Your task to perform on an android device: toggle javascript in the chrome app Image 0: 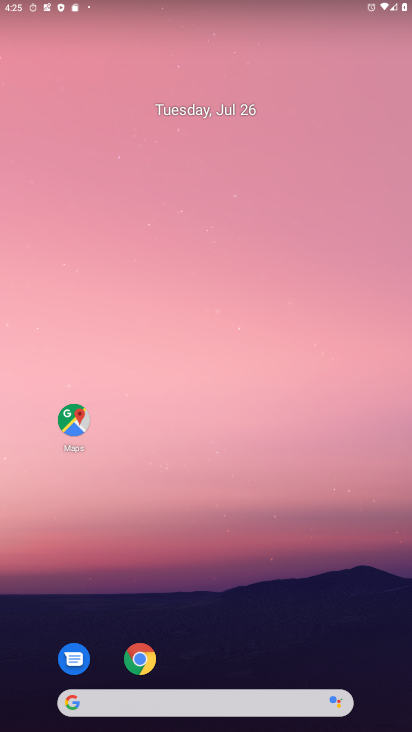
Step 0: drag from (237, 669) to (317, 77)
Your task to perform on an android device: toggle javascript in the chrome app Image 1: 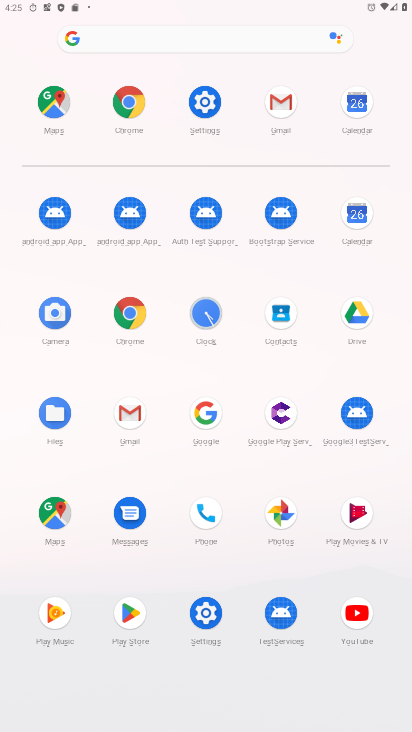
Step 1: click (130, 103)
Your task to perform on an android device: toggle javascript in the chrome app Image 2: 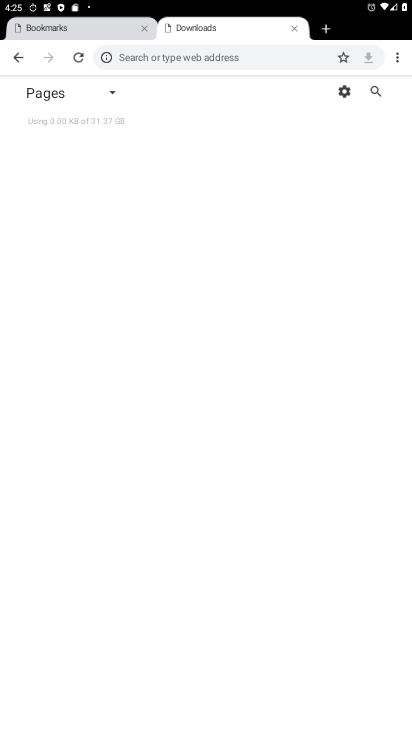
Step 2: drag from (402, 57) to (278, 299)
Your task to perform on an android device: toggle javascript in the chrome app Image 3: 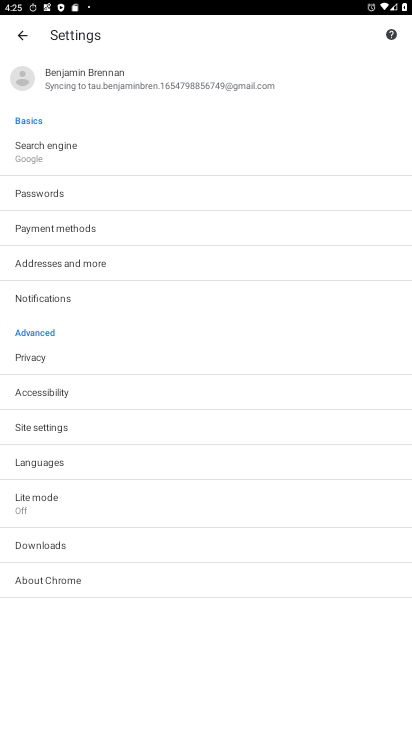
Step 3: click (26, 428)
Your task to perform on an android device: toggle javascript in the chrome app Image 4: 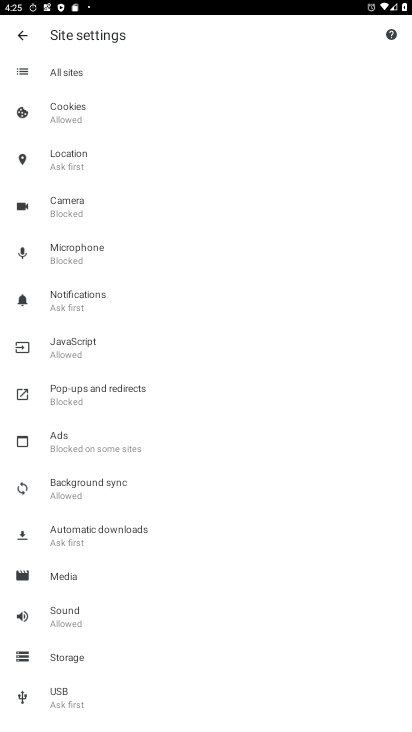
Step 4: click (57, 346)
Your task to perform on an android device: toggle javascript in the chrome app Image 5: 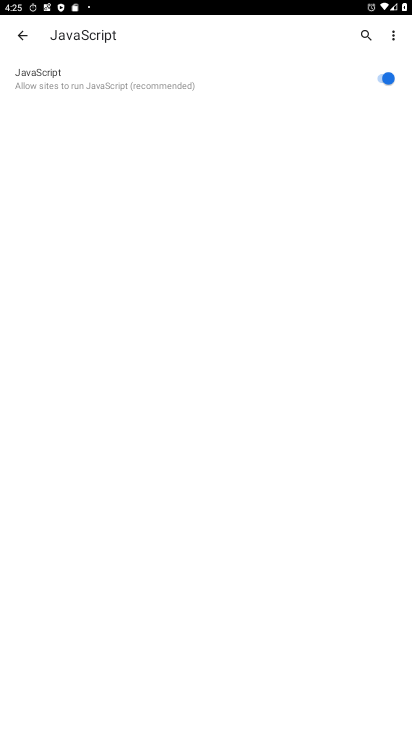
Step 5: click (386, 77)
Your task to perform on an android device: toggle javascript in the chrome app Image 6: 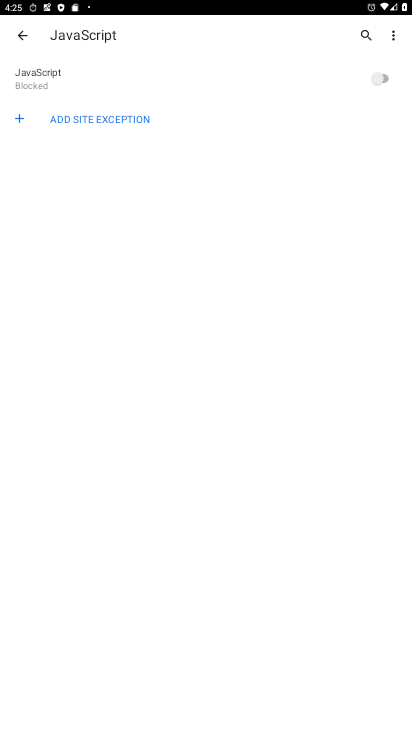
Step 6: task complete